Your task to perform on an android device: turn on javascript in the chrome app Image 0: 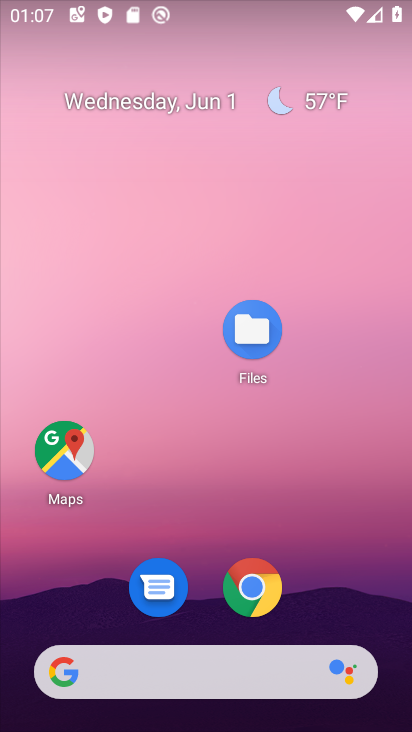
Step 0: press home button
Your task to perform on an android device: turn on javascript in the chrome app Image 1: 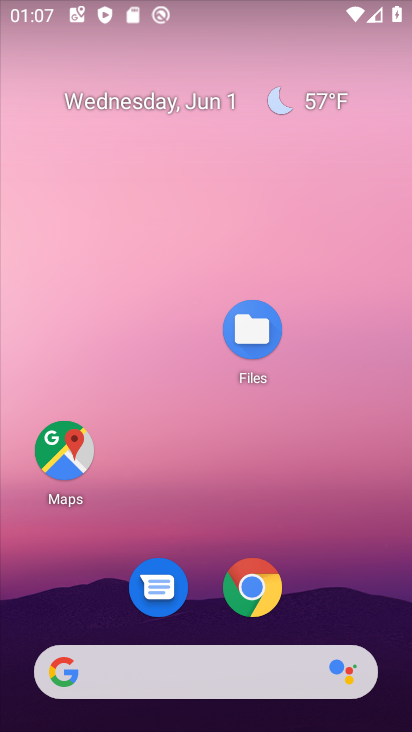
Step 1: click (339, 605)
Your task to perform on an android device: turn on javascript in the chrome app Image 2: 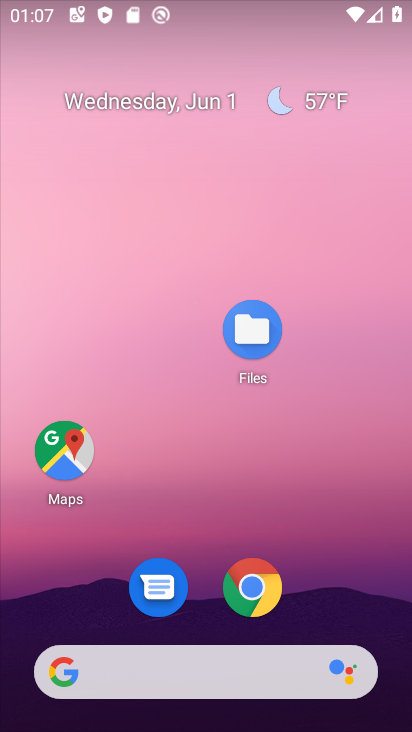
Step 2: click (258, 590)
Your task to perform on an android device: turn on javascript in the chrome app Image 3: 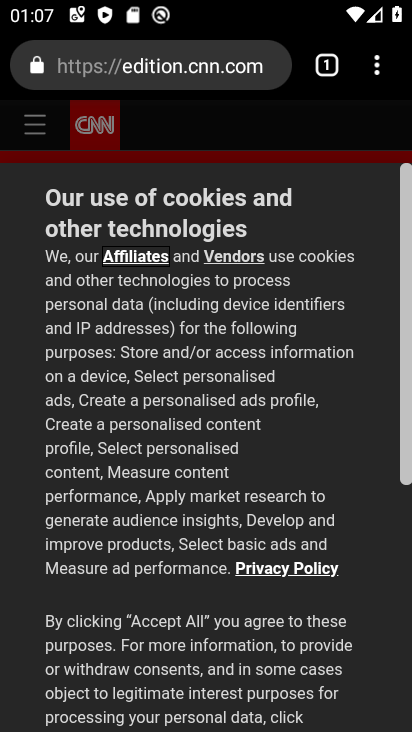
Step 3: drag from (374, 61) to (114, 624)
Your task to perform on an android device: turn on javascript in the chrome app Image 4: 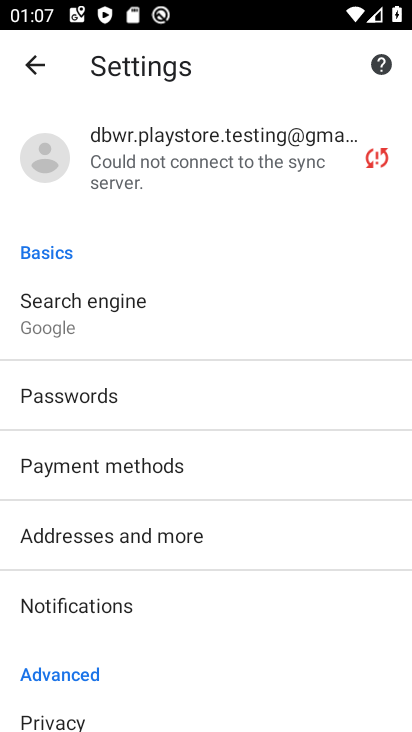
Step 4: drag from (217, 641) to (220, 359)
Your task to perform on an android device: turn on javascript in the chrome app Image 5: 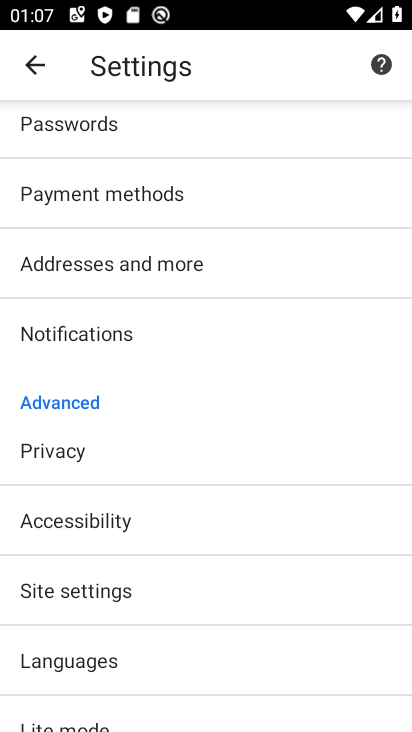
Step 5: click (179, 582)
Your task to perform on an android device: turn on javascript in the chrome app Image 6: 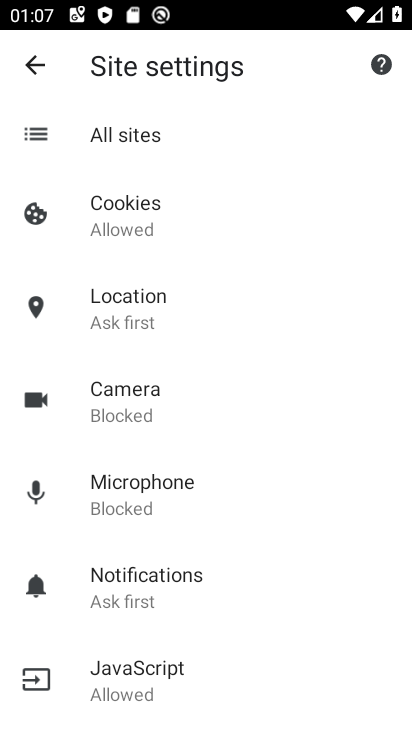
Step 6: click (168, 670)
Your task to perform on an android device: turn on javascript in the chrome app Image 7: 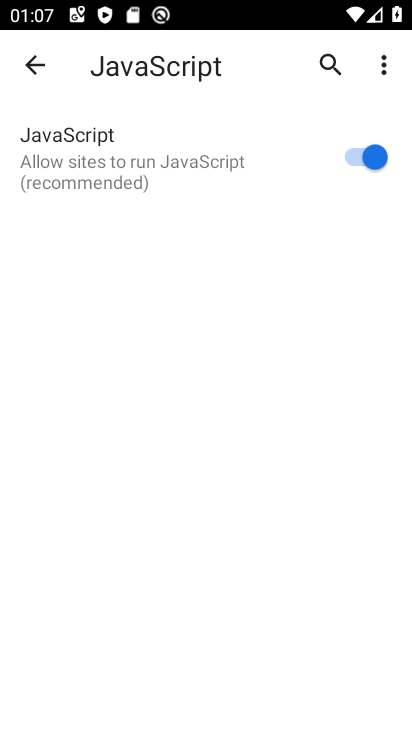
Step 7: task complete